Your task to perform on an android device: Open the calendar app, open the side menu, and click the "Day" option Image 0: 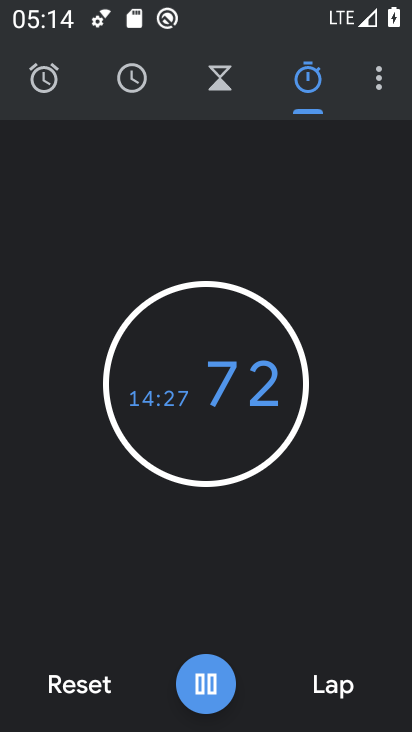
Step 0: press home button
Your task to perform on an android device: Open the calendar app, open the side menu, and click the "Day" option Image 1: 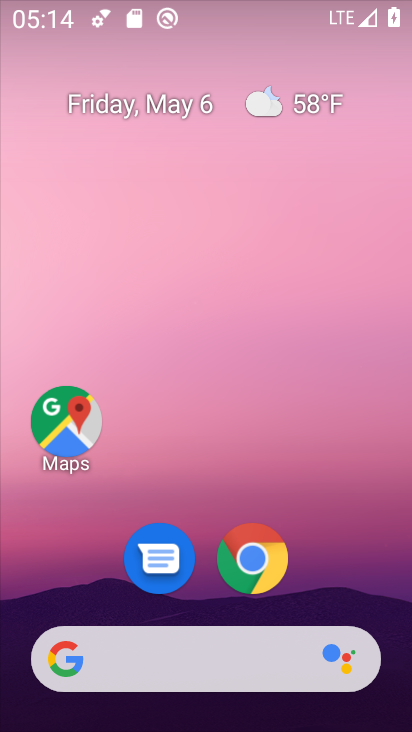
Step 1: drag from (225, 633) to (220, 77)
Your task to perform on an android device: Open the calendar app, open the side menu, and click the "Day" option Image 2: 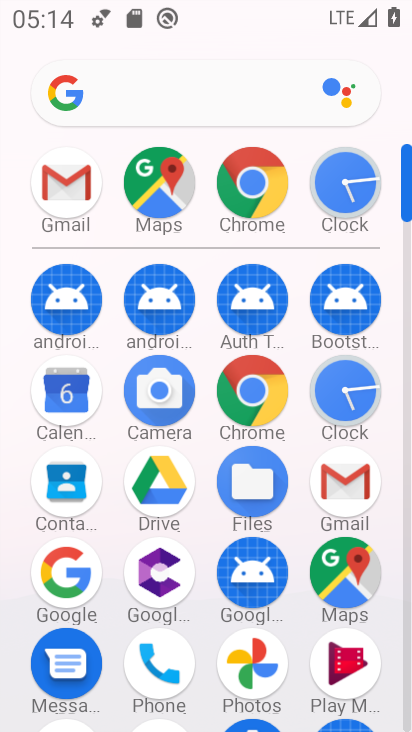
Step 2: click (62, 388)
Your task to perform on an android device: Open the calendar app, open the side menu, and click the "Day" option Image 3: 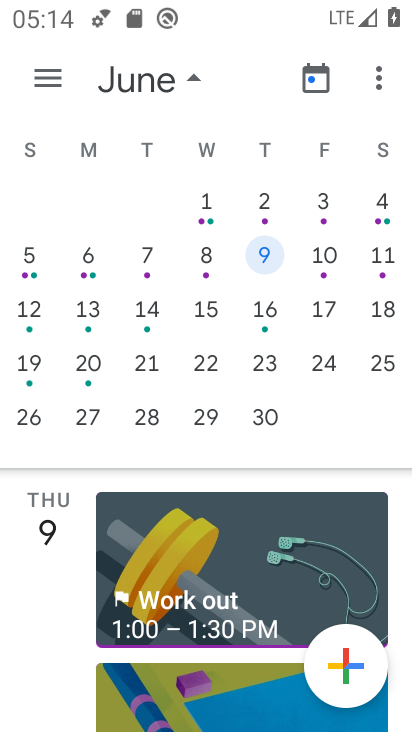
Step 3: click (45, 70)
Your task to perform on an android device: Open the calendar app, open the side menu, and click the "Day" option Image 4: 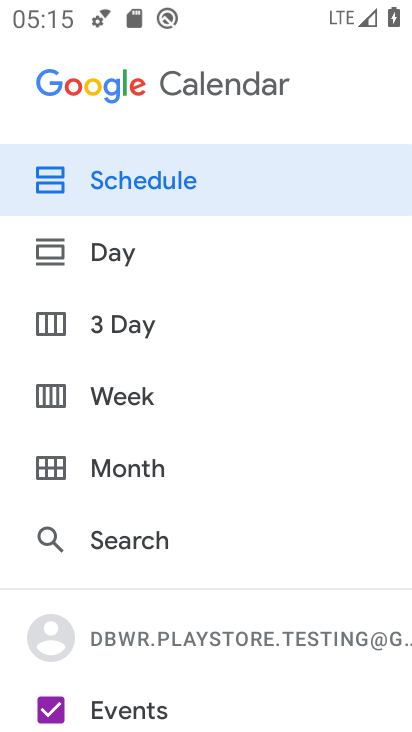
Step 4: click (126, 253)
Your task to perform on an android device: Open the calendar app, open the side menu, and click the "Day" option Image 5: 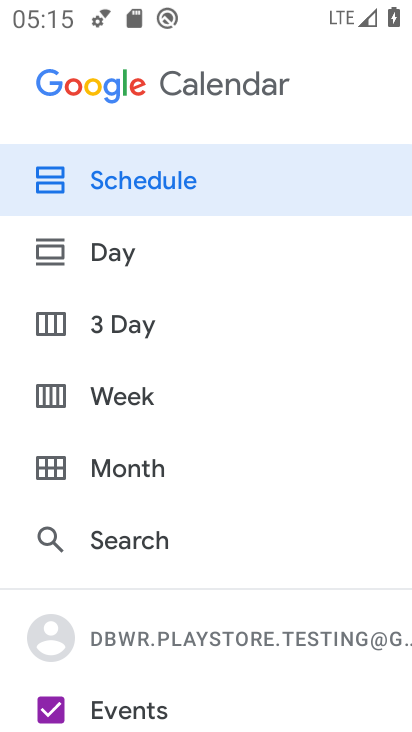
Step 5: click (200, 252)
Your task to perform on an android device: Open the calendar app, open the side menu, and click the "Day" option Image 6: 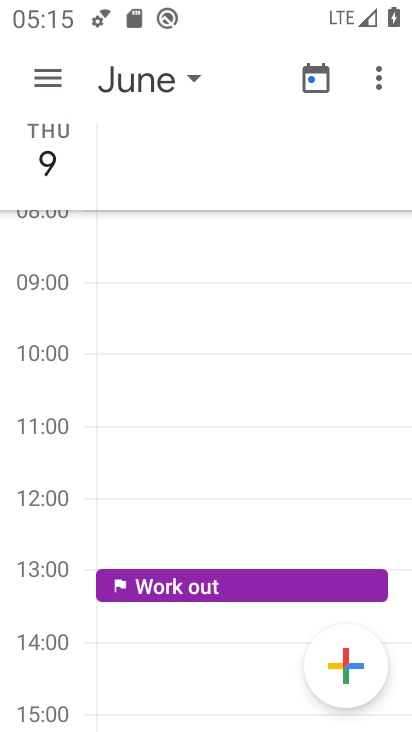
Step 6: task complete